Your task to perform on an android device: Open Google Chrome Image 0: 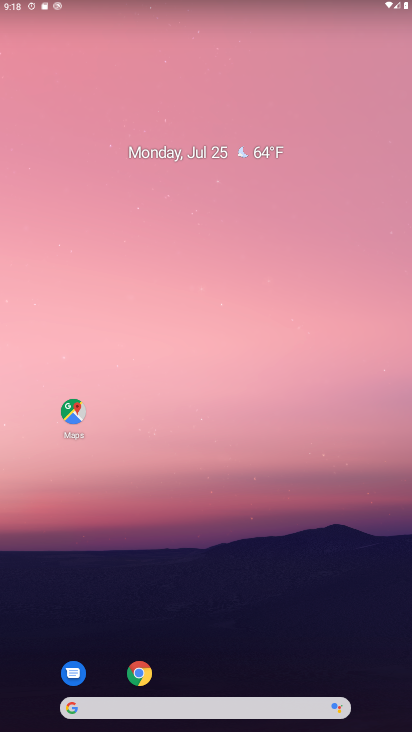
Step 0: click (138, 669)
Your task to perform on an android device: Open Google Chrome Image 1: 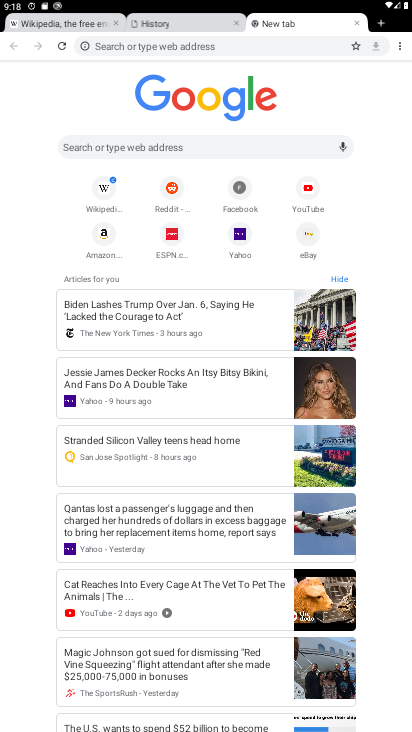
Step 1: click (357, 22)
Your task to perform on an android device: Open Google Chrome Image 2: 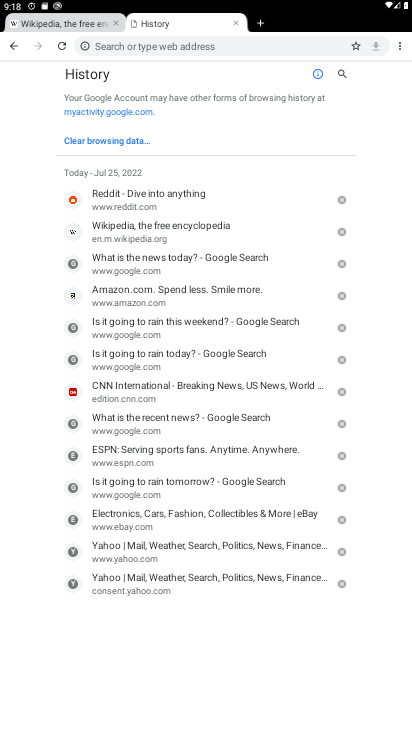
Step 2: click (258, 21)
Your task to perform on an android device: Open Google Chrome Image 3: 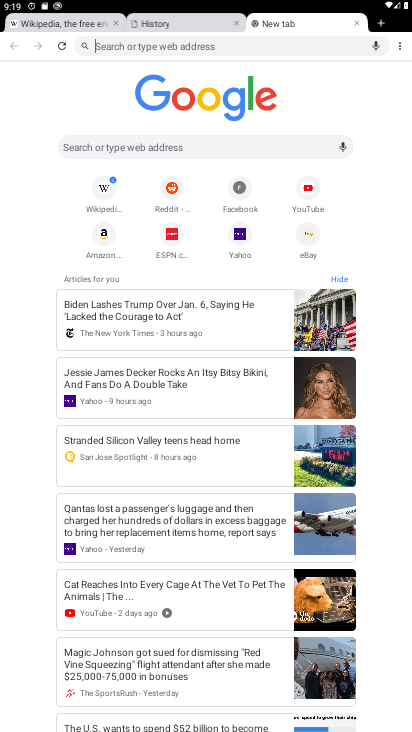
Step 3: task complete